Your task to perform on an android device: Open Amazon Image 0: 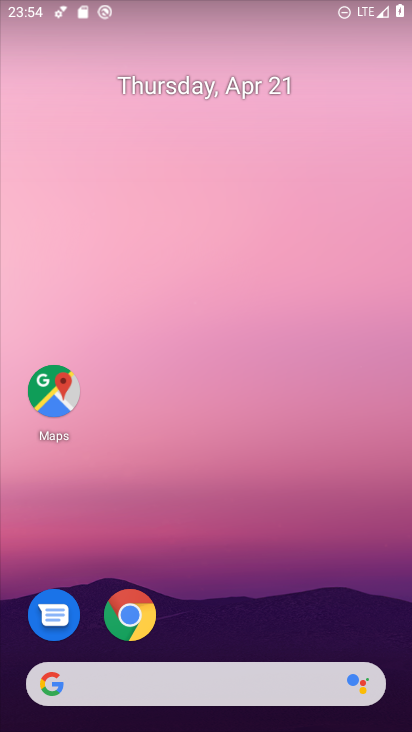
Step 0: press home button
Your task to perform on an android device: Open Amazon Image 1: 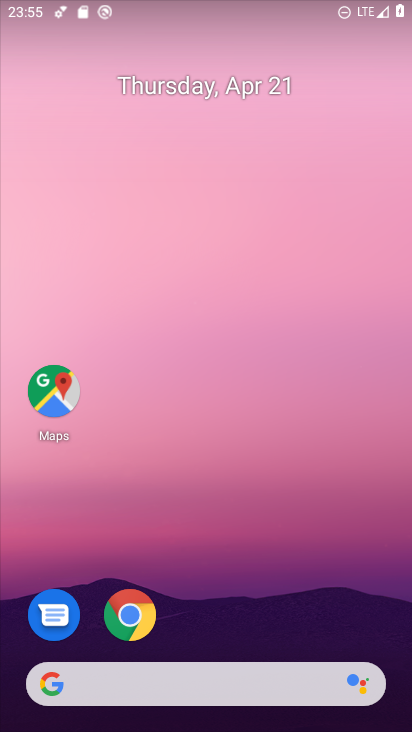
Step 1: drag from (200, 642) to (242, 158)
Your task to perform on an android device: Open Amazon Image 2: 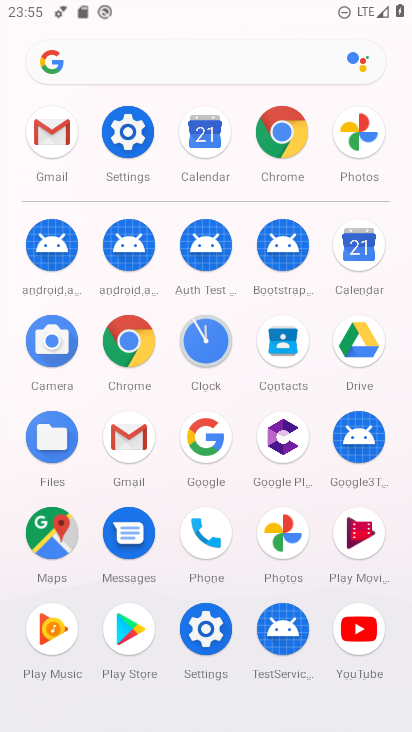
Step 2: click (278, 128)
Your task to perform on an android device: Open Amazon Image 3: 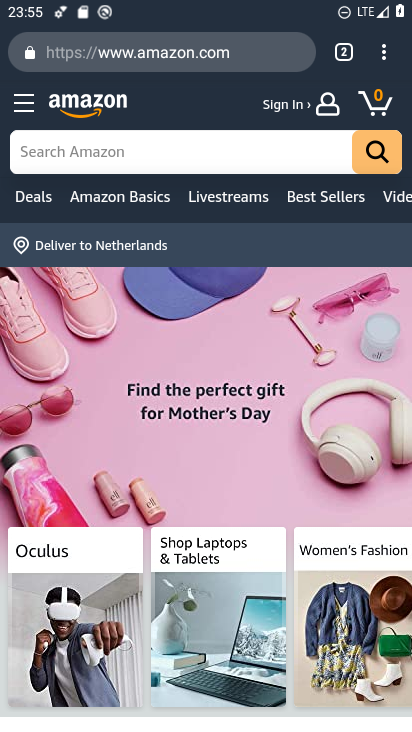
Step 3: task complete